Your task to perform on an android device: toggle improve location accuracy Image 0: 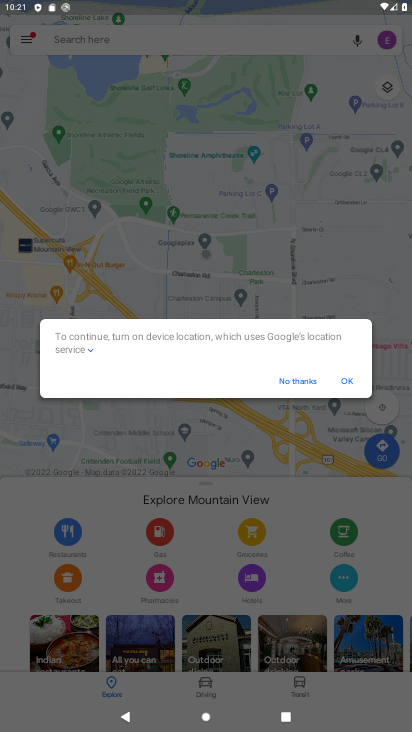
Step 0: press back button
Your task to perform on an android device: toggle improve location accuracy Image 1: 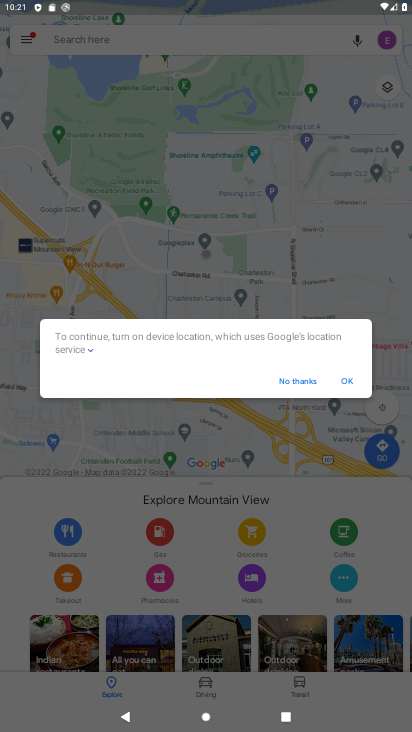
Step 1: press back button
Your task to perform on an android device: toggle improve location accuracy Image 2: 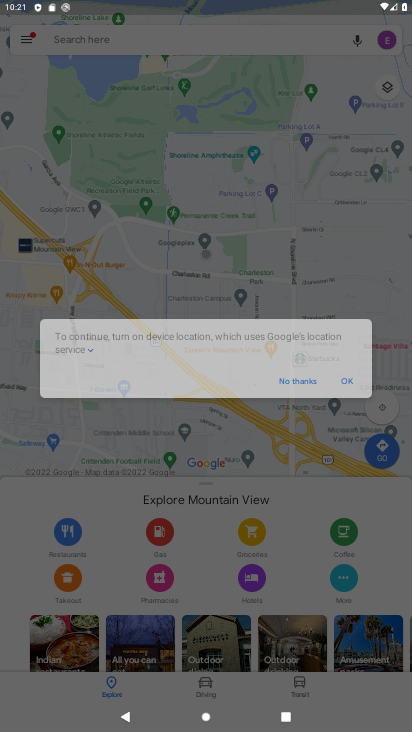
Step 2: press back button
Your task to perform on an android device: toggle improve location accuracy Image 3: 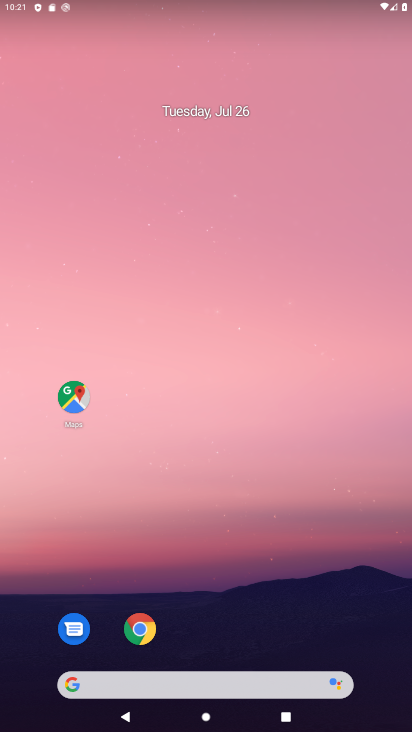
Step 3: drag from (242, 664) to (251, 79)
Your task to perform on an android device: toggle improve location accuracy Image 4: 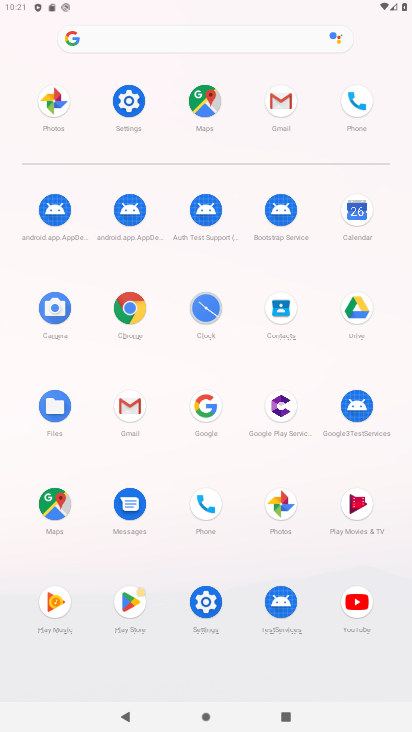
Step 4: click (201, 597)
Your task to perform on an android device: toggle improve location accuracy Image 5: 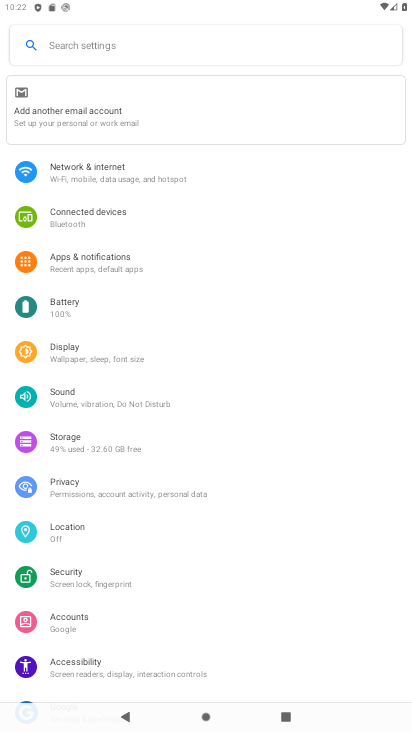
Step 5: click (138, 538)
Your task to perform on an android device: toggle improve location accuracy Image 6: 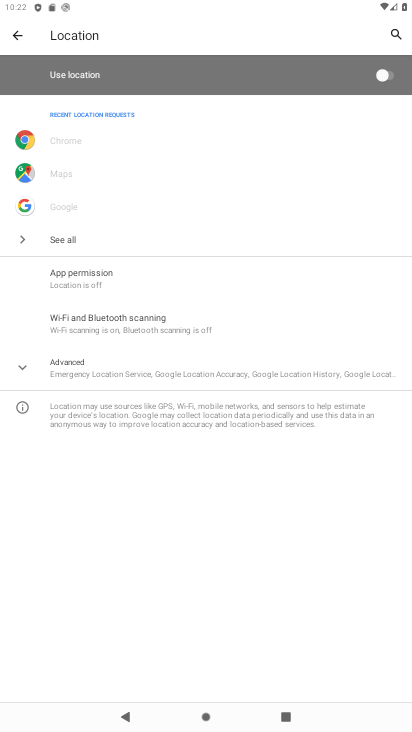
Step 6: click (64, 360)
Your task to perform on an android device: toggle improve location accuracy Image 7: 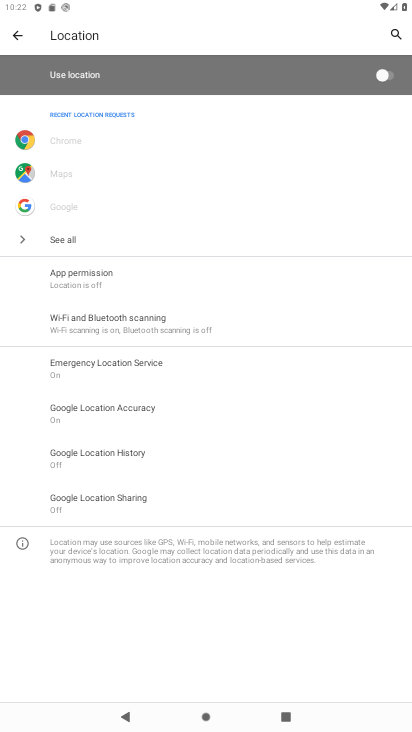
Step 7: click (178, 412)
Your task to perform on an android device: toggle improve location accuracy Image 8: 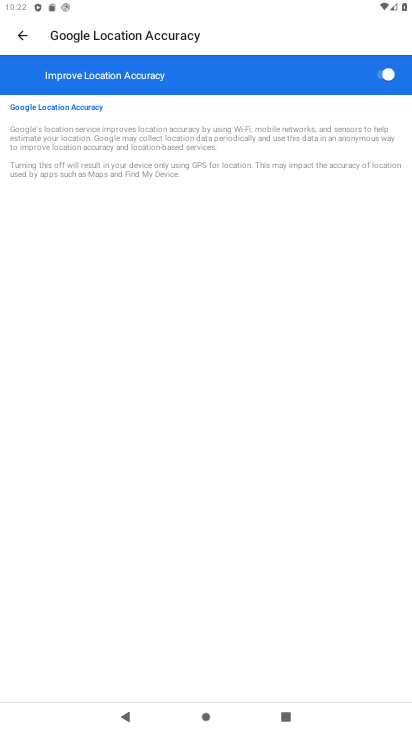
Step 8: task complete